Your task to perform on an android device: visit the assistant section in the google photos Image 0: 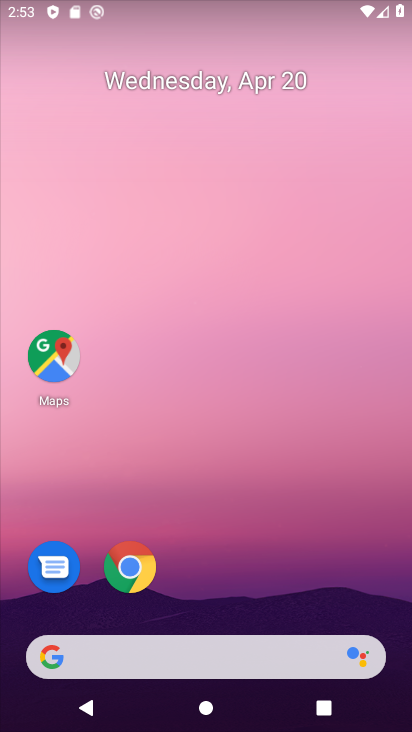
Step 0: drag from (204, 556) to (292, 105)
Your task to perform on an android device: visit the assistant section in the google photos Image 1: 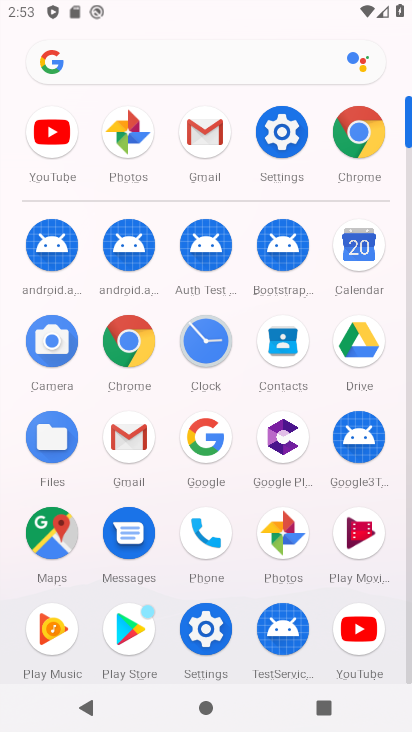
Step 1: click (274, 540)
Your task to perform on an android device: visit the assistant section in the google photos Image 2: 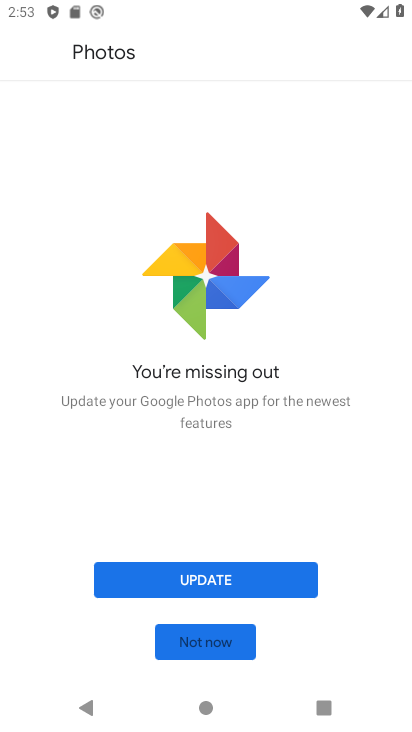
Step 2: click (236, 644)
Your task to perform on an android device: visit the assistant section in the google photos Image 3: 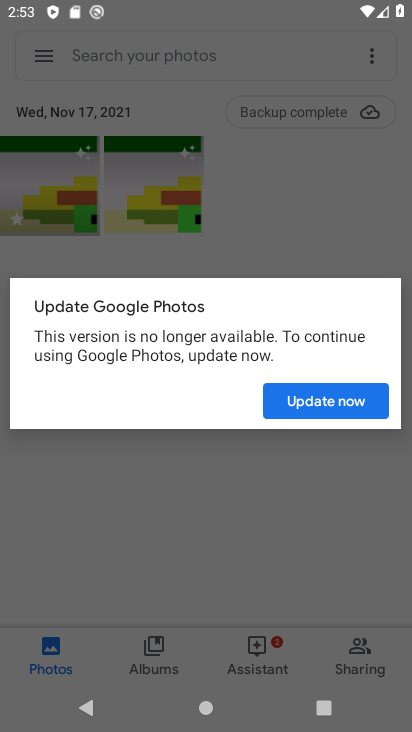
Step 3: click (332, 399)
Your task to perform on an android device: visit the assistant section in the google photos Image 4: 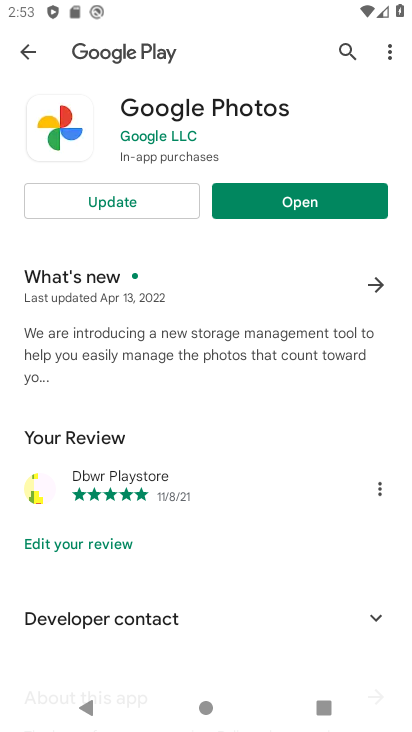
Step 4: click (266, 201)
Your task to perform on an android device: visit the assistant section in the google photos Image 5: 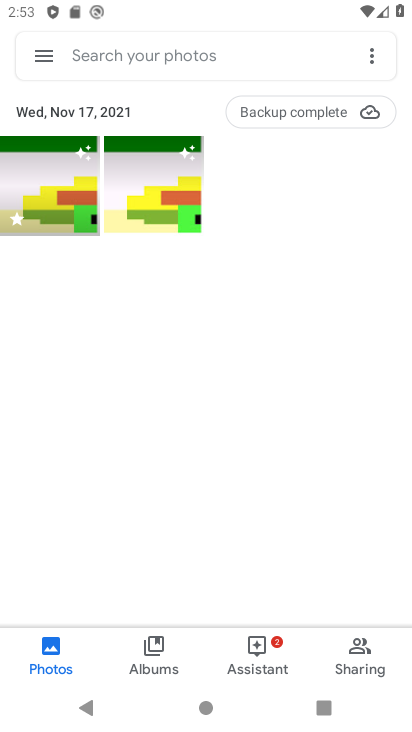
Step 5: click (274, 656)
Your task to perform on an android device: visit the assistant section in the google photos Image 6: 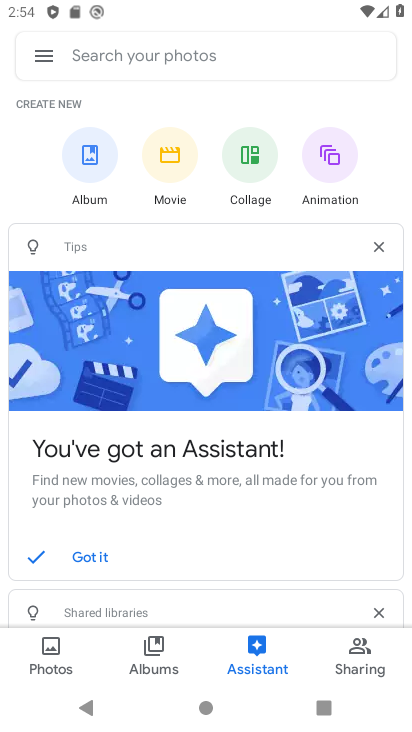
Step 6: task complete